Your task to perform on an android device: Do I have any events this weekend? Image 0: 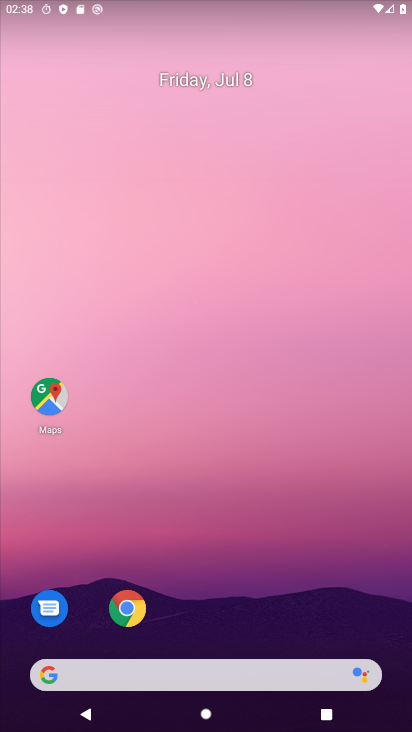
Step 0: drag from (241, 620) to (247, 169)
Your task to perform on an android device: Do I have any events this weekend? Image 1: 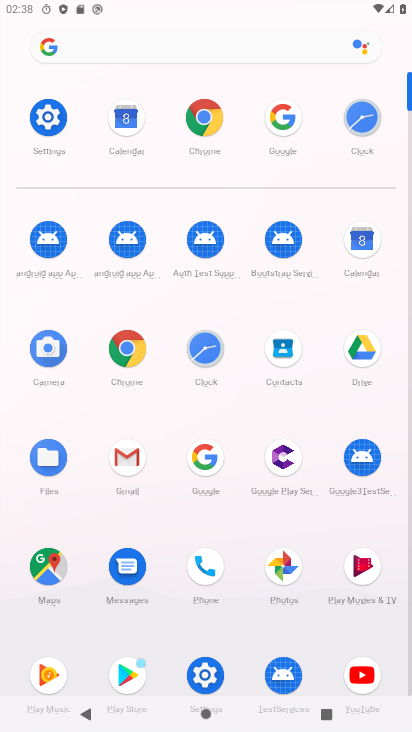
Step 1: click (360, 237)
Your task to perform on an android device: Do I have any events this weekend? Image 2: 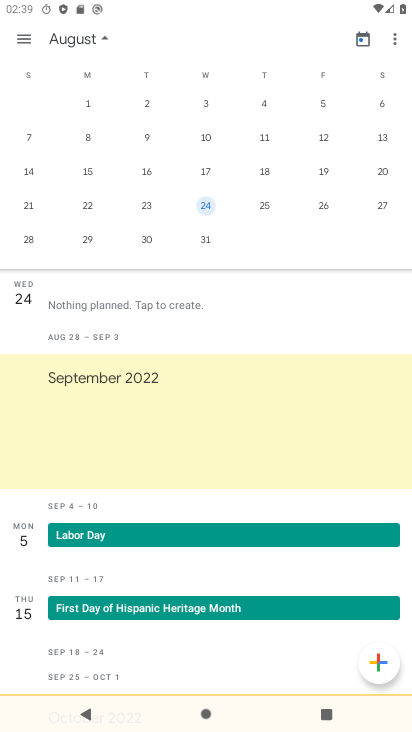
Step 2: drag from (23, 249) to (405, 236)
Your task to perform on an android device: Do I have any events this weekend? Image 3: 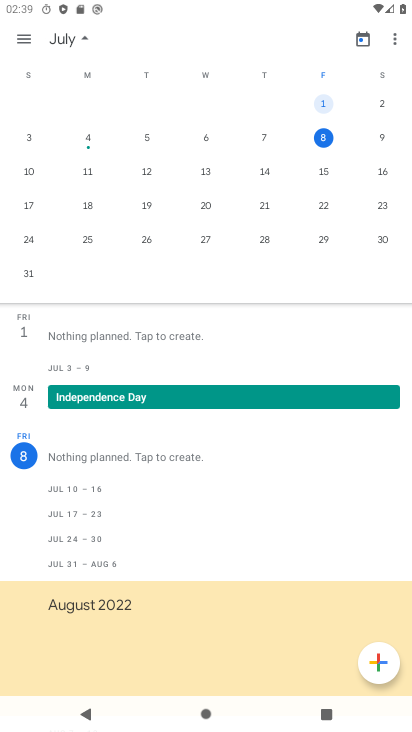
Step 3: click (323, 170)
Your task to perform on an android device: Do I have any events this weekend? Image 4: 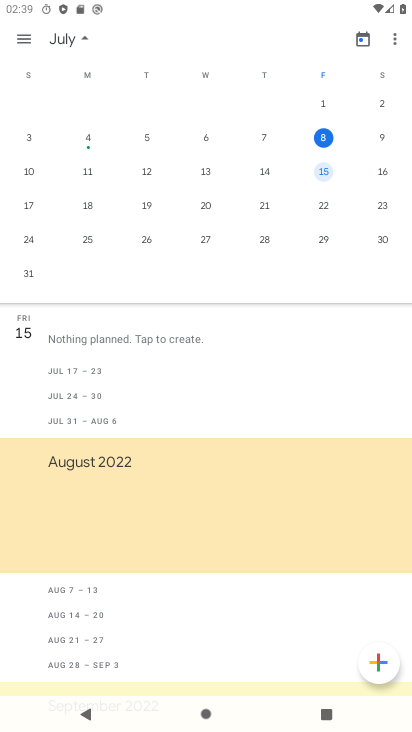
Step 4: task complete